Your task to perform on an android device: turn on bluetooth scan Image 0: 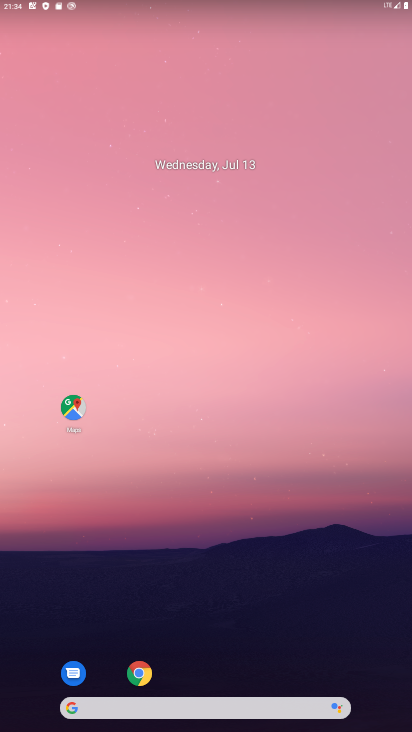
Step 0: drag from (202, 575) to (267, 280)
Your task to perform on an android device: turn on bluetooth scan Image 1: 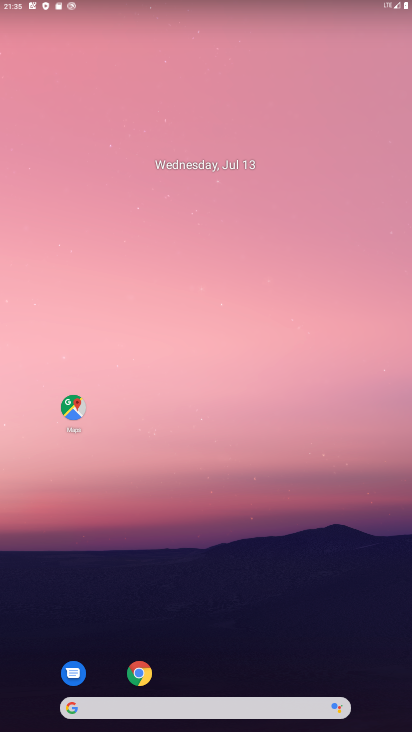
Step 1: drag from (195, 663) to (266, 241)
Your task to perform on an android device: turn on bluetooth scan Image 2: 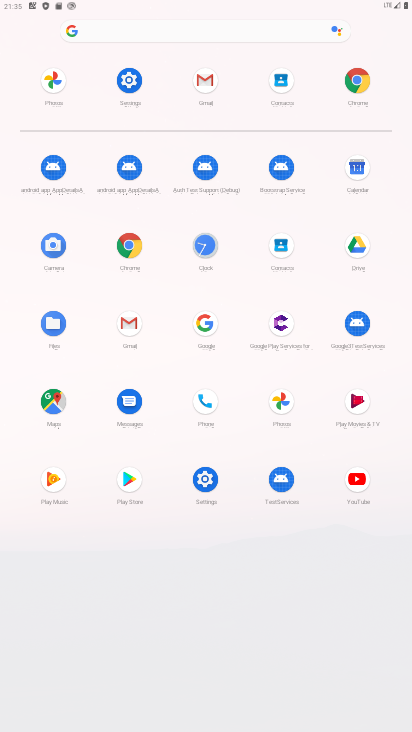
Step 2: drag from (162, 671) to (237, 203)
Your task to perform on an android device: turn on bluetooth scan Image 3: 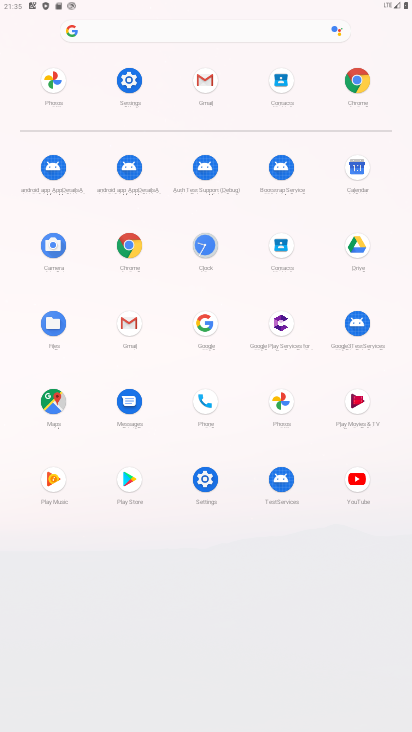
Step 3: drag from (180, 552) to (185, 194)
Your task to perform on an android device: turn on bluetooth scan Image 4: 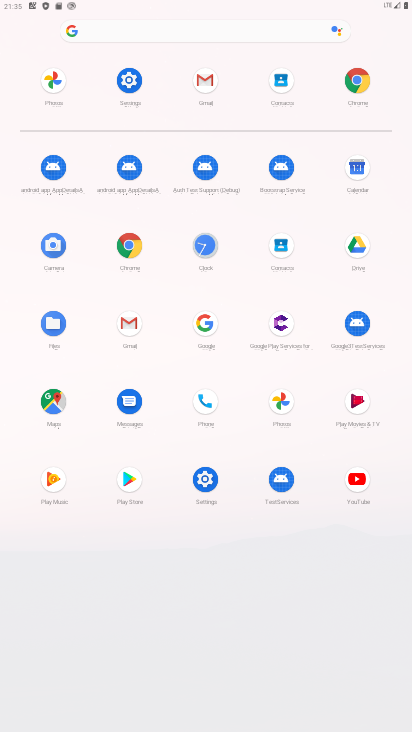
Step 4: drag from (181, 453) to (201, 229)
Your task to perform on an android device: turn on bluetooth scan Image 5: 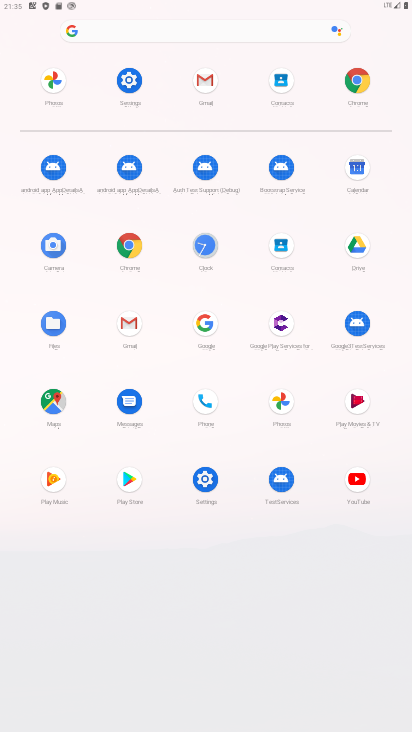
Step 5: click (222, 420)
Your task to perform on an android device: turn on bluetooth scan Image 6: 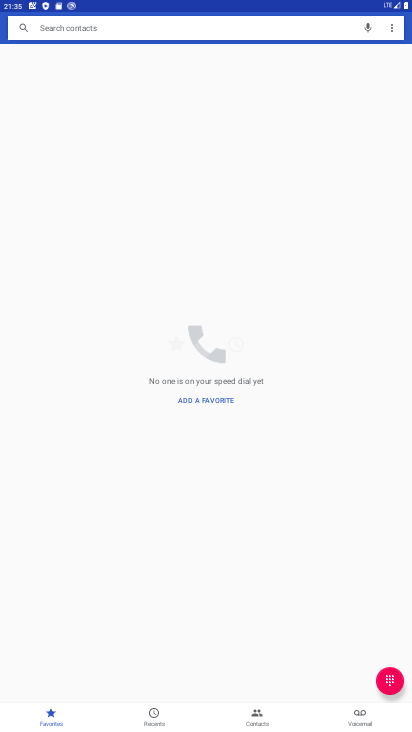
Step 6: drag from (219, 548) to (253, 365)
Your task to perform on an android device: turn on bluetooth scan Image 7: 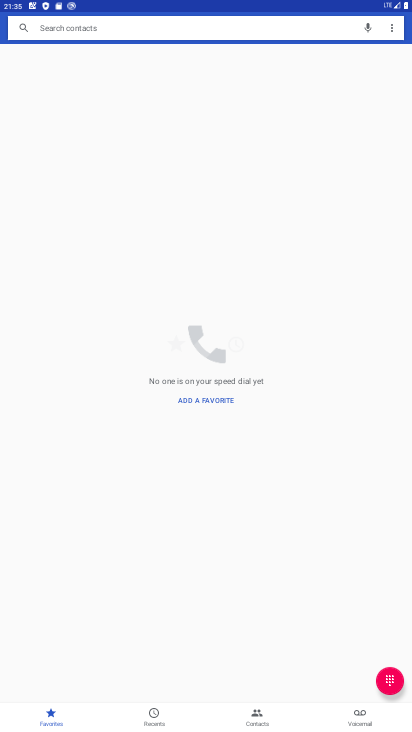
Step 7: drag from (297, 547) to (400, 134)
Your task to perform on an android device: turn on bluetooth scan Image 8: 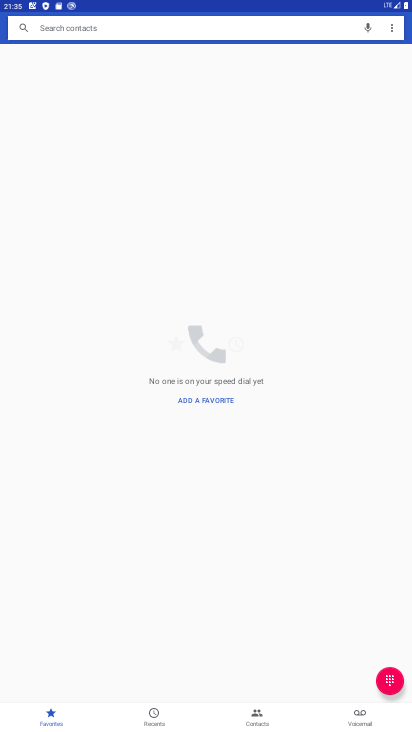
Step 8: drag from (259, 570) to (308, 198)
Your task to perform on an android device: turn on bluetooth scan Image 9: 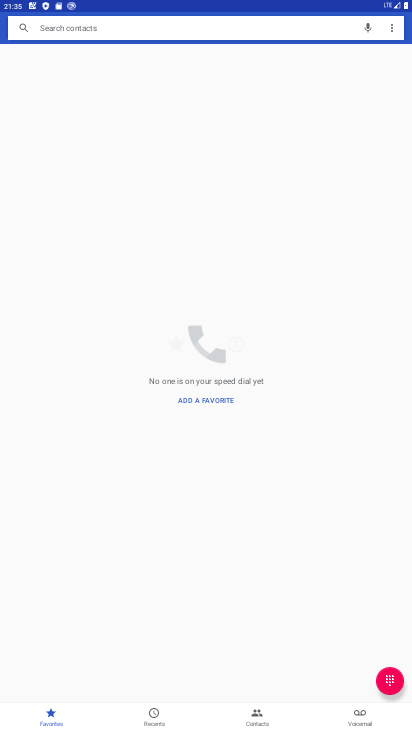
Step 9: click (260, 78)
Your task to perform on an android device: turn on bluetooth scan Image 10: 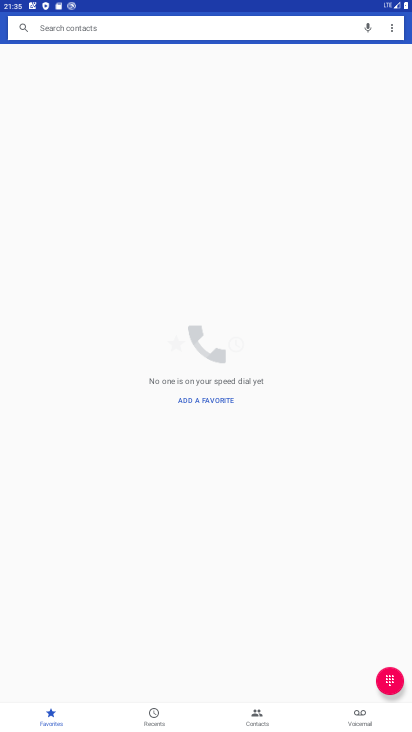
Step 10: drag from (282, 499) to (245, 340)
Your task to perform on an android device: turn on bluetooth scan Image 11: 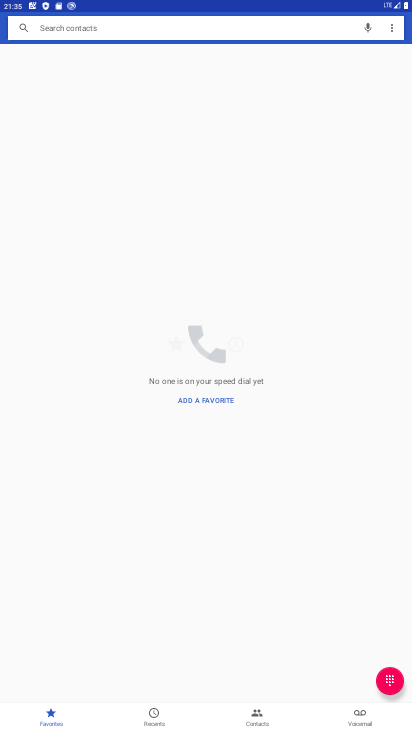
Step 11: drag from (306, 522) to (277, 274)
Your task to perform on an android device: turn on bluetooth scan Image 12: 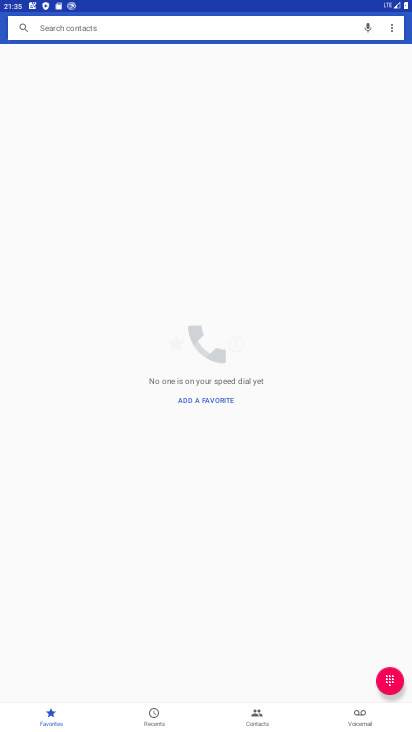
Step 12: drag from (260, 659) to (239, 249)
Your task to perform on an android device: turn on bluetooth scan Image 13: 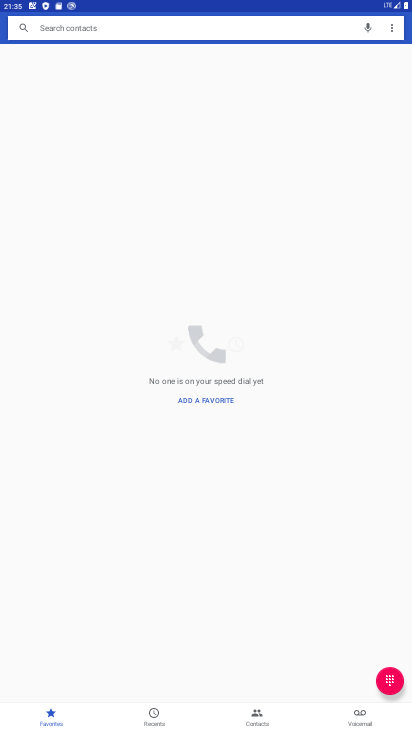
Step 13: drag from (233, 502) to (265, 226)
Your task to perform on an android device: turn on bluetooth scan Image 14: 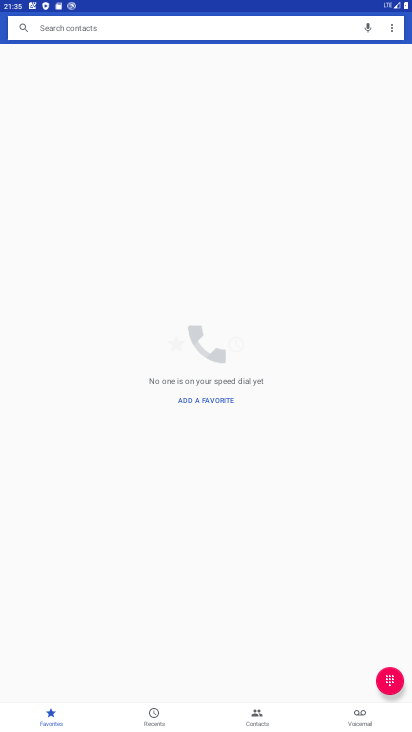
Step 14: drag from (362, 642) to (287, 293)
Your task to perform on an android device: turn on bluetooth scan Image 15: 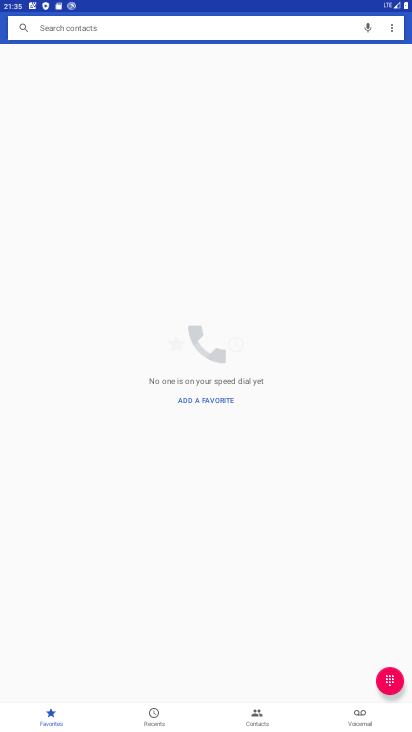
Step 15: drag from (285, 553) to (255, 362)
Your task to perform on an android device: turn on bluetooth scan Image 16: 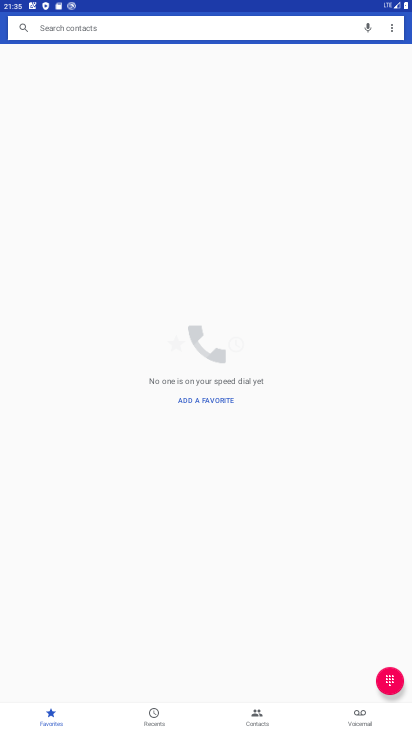
Step 16: press home button
Your task to perform on an android device: turn on bluetooth scan Image 17: 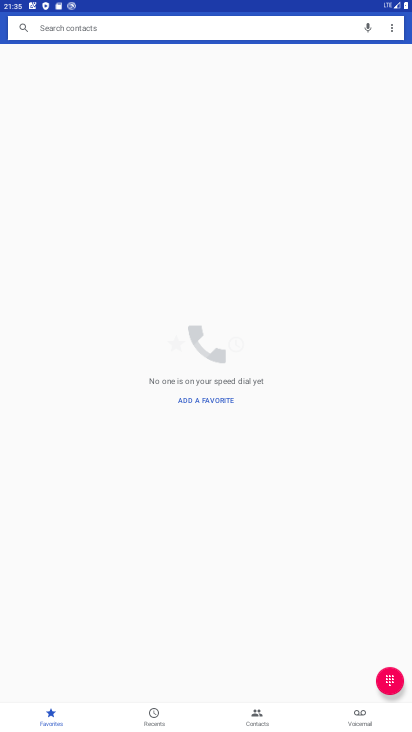
Step 17: press home button
Your task to perform on an android device: turn on bluetooth scan Image 18: 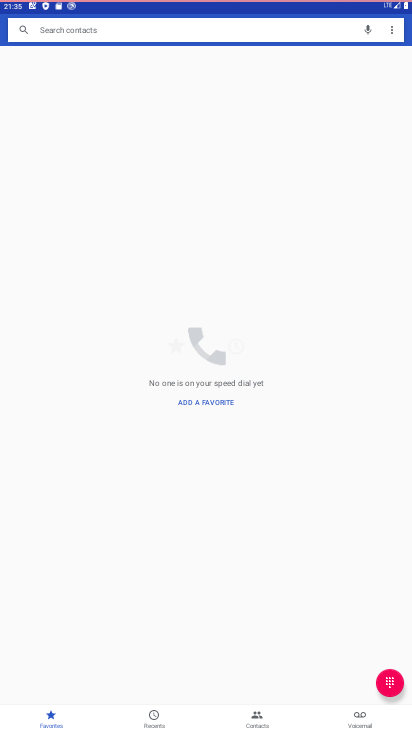
Step 18: drag from (276, 519) to (215, 47)
Your task to perform on an android device: turn on bluetooth scan Image 19: 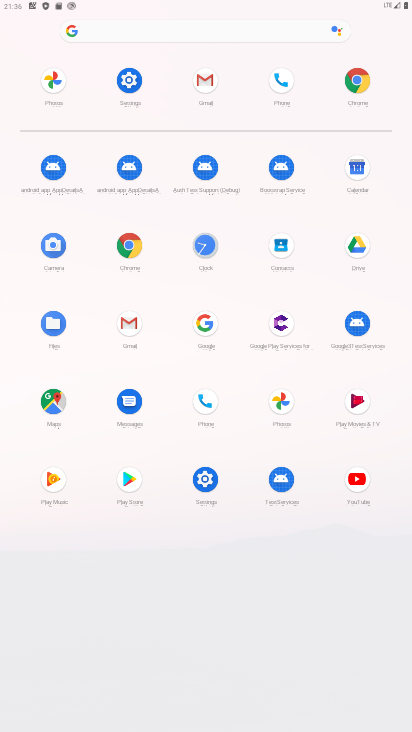
Step 19: drag from (283, 602) to (241, 209)
Your task to perform on an android device: turn on bluetooth scan Image 20: 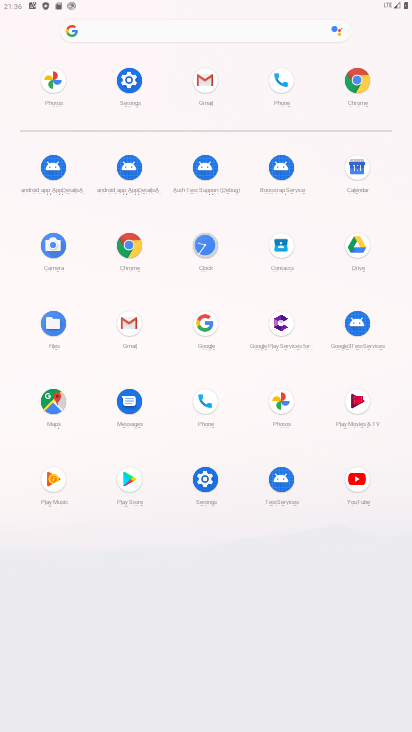
Step 20: click (206, 476)
Your task to perform on an android device: turn on bluetooth scan Image 21: 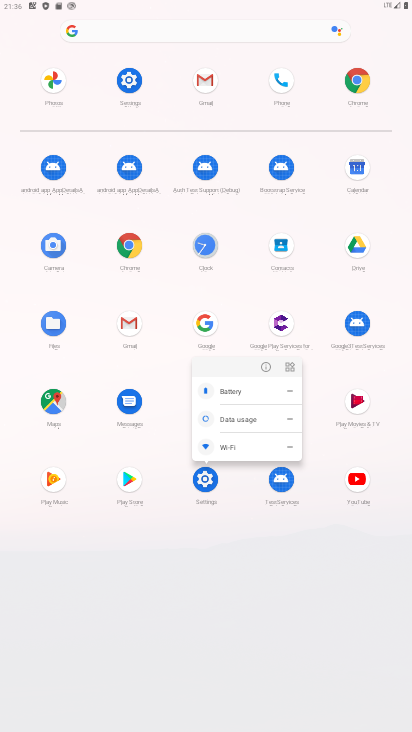
Step 21: click (263, 359)
Your task to perform on an android device: turn on bluetooth scan Image 22: 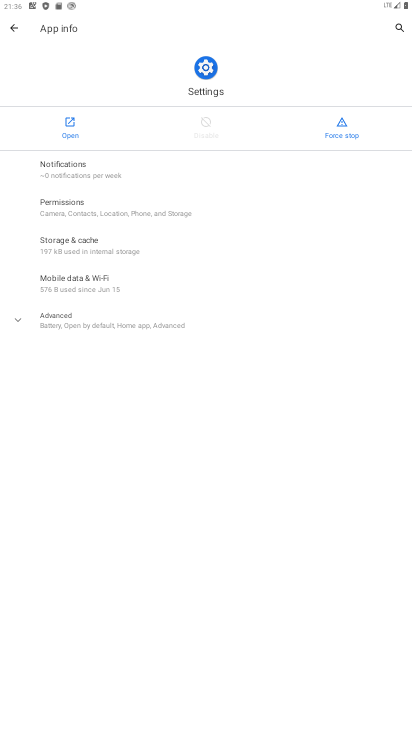
Step 22: click (55, 128)
Your task to perform on an android device: turn on bluetooth scan Image 23: 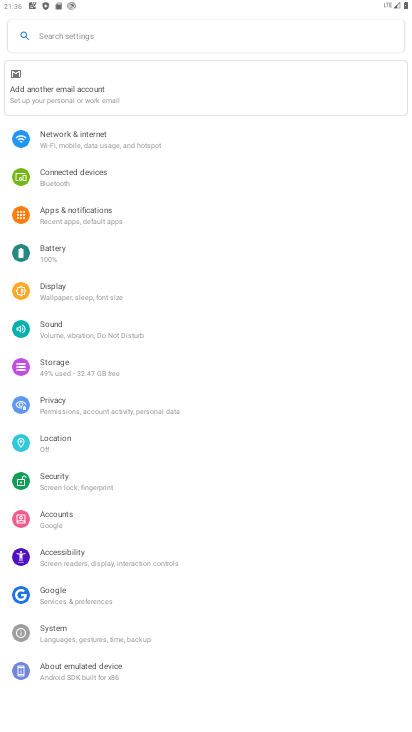
Step 23: drag from (168, 655) to (154, 361)
Your task to perform on an android device: turn on bluetooth scan Image 24: 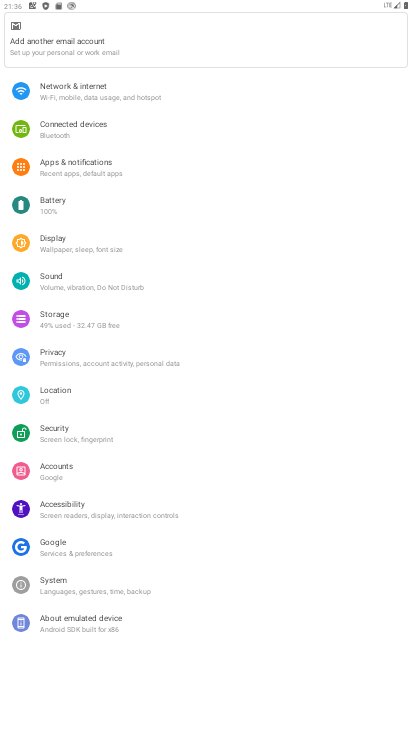
Step 24: drag from (156, 344) to (211, 652)
Your task to perform on an android device: turn on bluetooth scan Image 25: 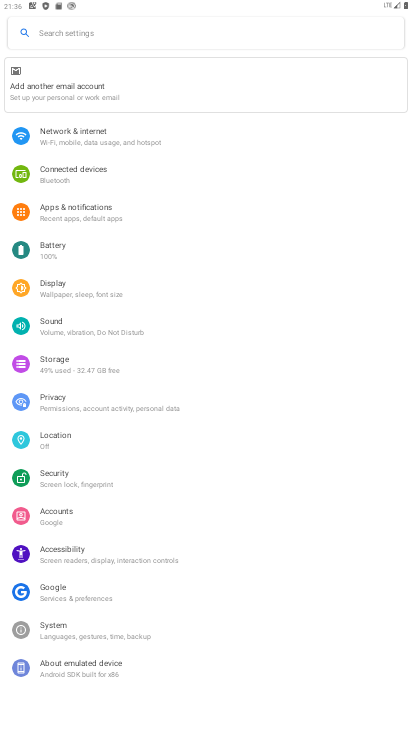
Step 25: click (56, 192)
Your task to perform on an android device: turn on bluetooth scan Image 26: 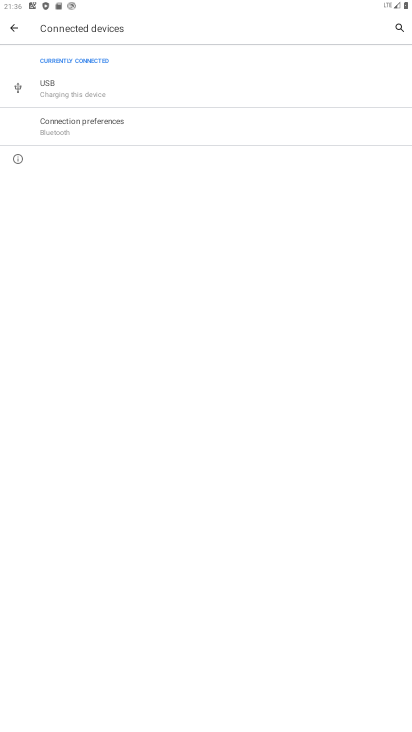
Step 26: press back button
Your task to perform on an android device: turn on bluetooth scan Image 27: 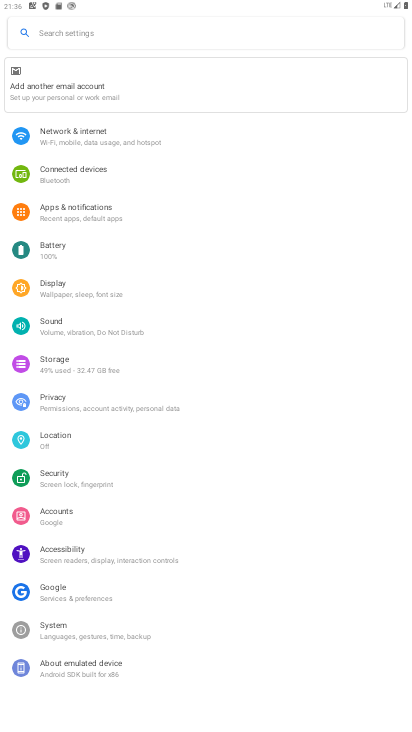
Step 27: click (57, 424)
Your task to perform on an android device: turn on bluetooth scan Image 28: 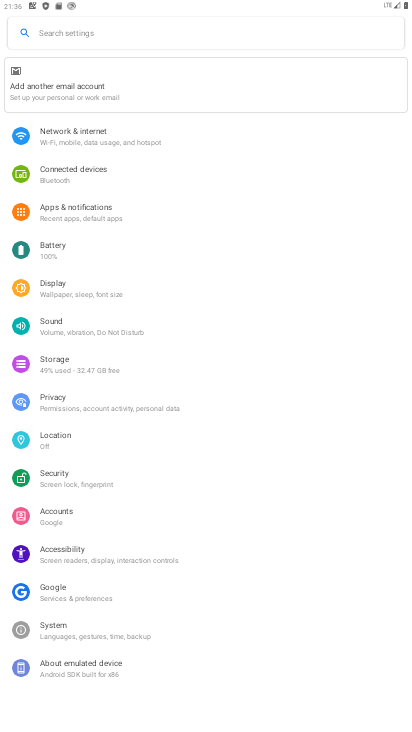
Step 28: click (57, 424)
Your task to perform on an android device: turn on bluetooth scan Image 29: 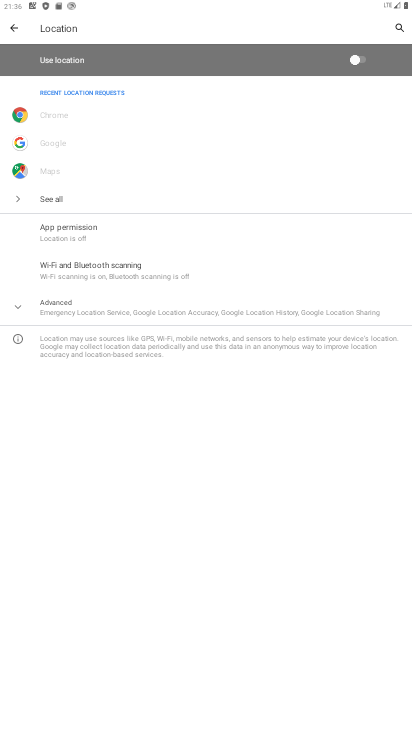
Step 29: click (57, 301)
Your task to perform on an android device: turn on bluetooth scan Image 30: 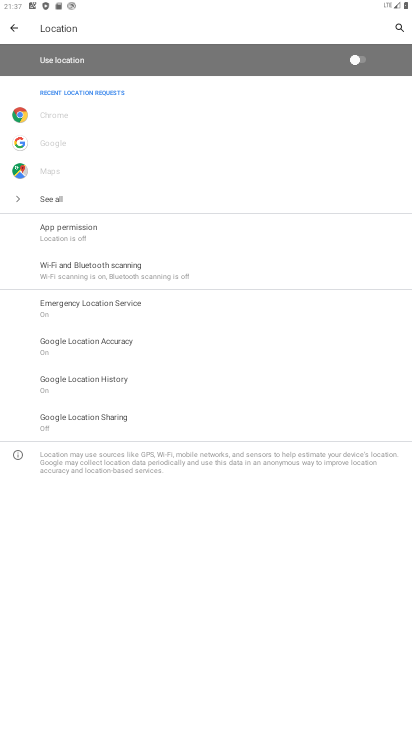
Step 30: click (127, 279)
Your task to perform on an android device: turn on bluetooth scan Image 31: 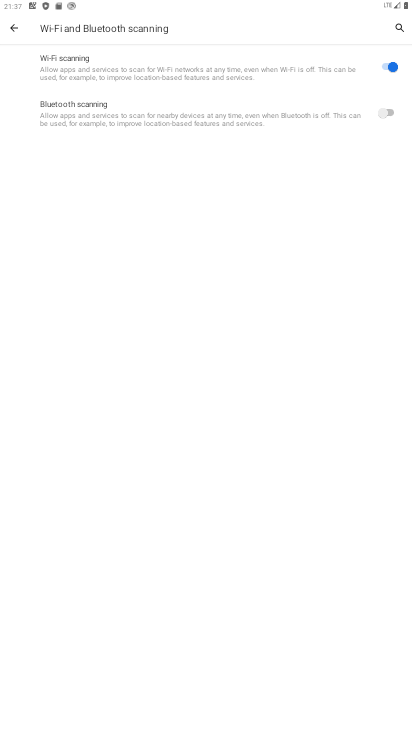
Step 31: click (295, 113)
Your task to perform on an android device: turn on bluetooth scan Image 32: 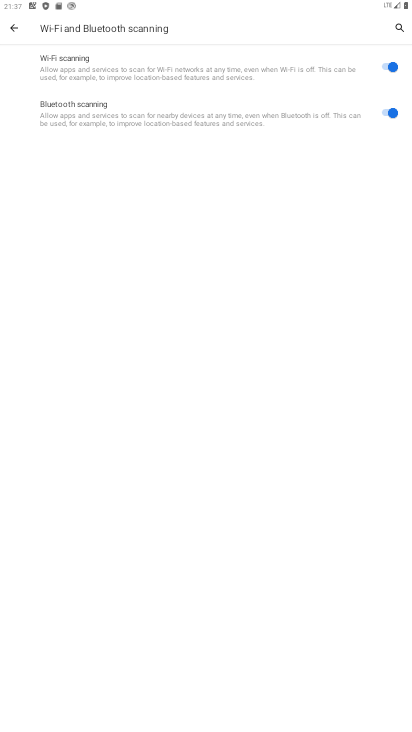
Step 32: task complete